Your task to perform on an android device: set default search engine in the chrome app Image 0: 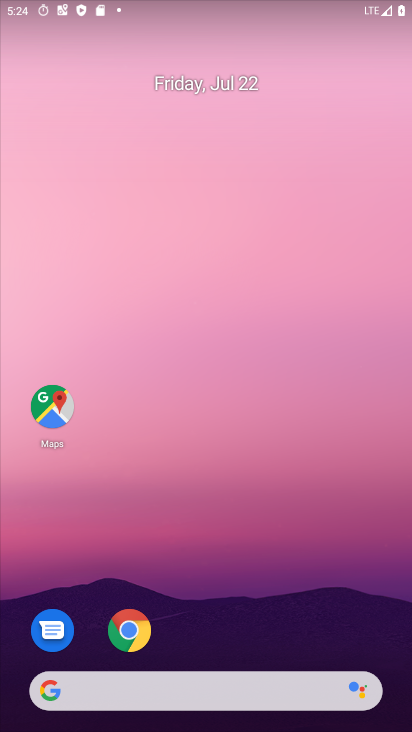
Step 0: drag from (252, 690) to (195, 7)
Your task to perform on an android device: set default search engine in the chrome app Image 1: 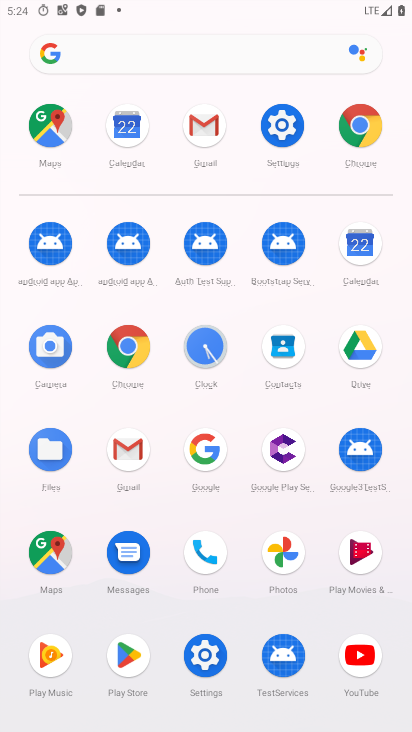
Step 1: click (139, 339)
Your task to perform on an android device: set default search engine in the chrome app Image 2: 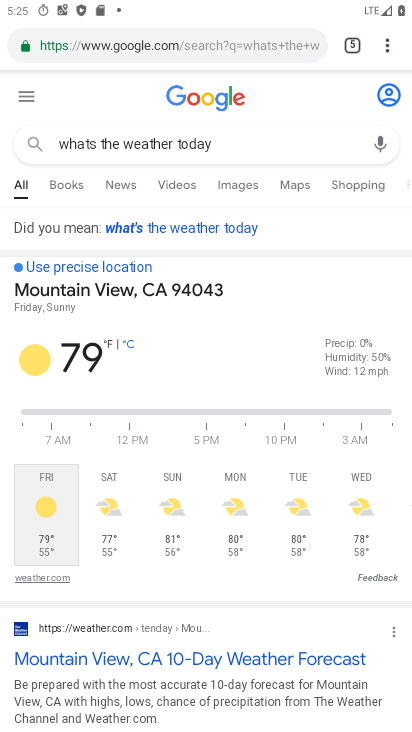
Step 2: drag from (384, 32) to (255, 499)
Your task to perform on an android device: set default search engine in the chrome app Image 3: 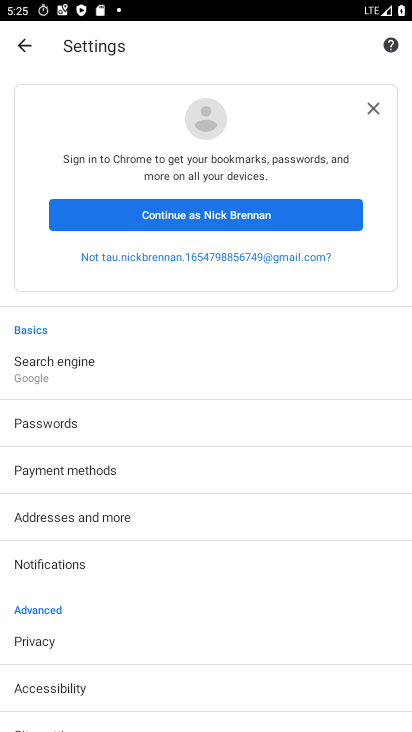
Step 3: click (45, 360)
Your task to perform on an android device: set default search engine in the chrome app Image 4: 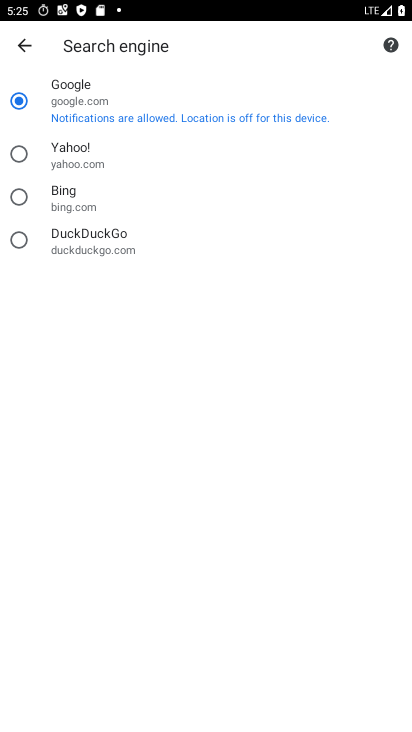
Step 4: task complete